Your task to perform on an android device: Go to accessibility settings Image 0: 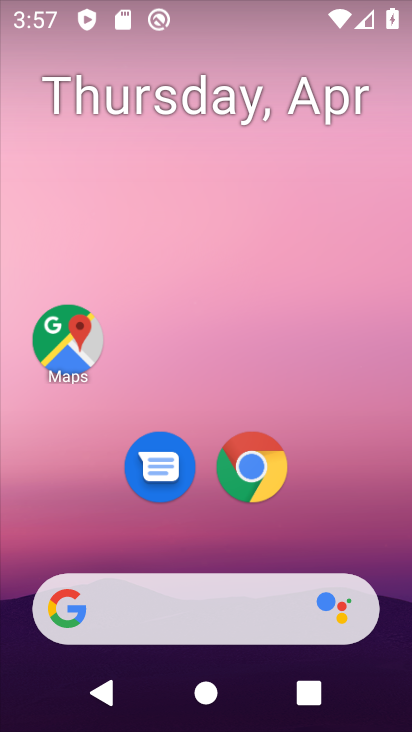
Step 0: drag from (230, 549) to (339, 17)
Your task to perform on an android device: Go to accessibility settings Image 1: 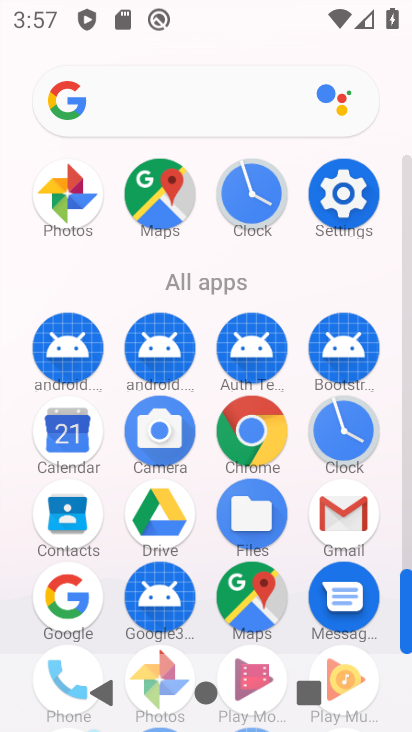
Step 1: click (352, 215)
Your task to perform on an android device: Go to accessibility settings Image 2: 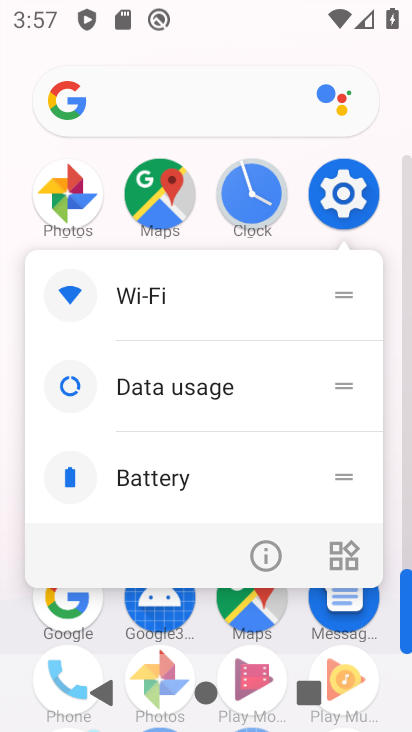
Step 2: click (340, 200)
Your task to perform on an android device: Go to accessibility settings Image 3: 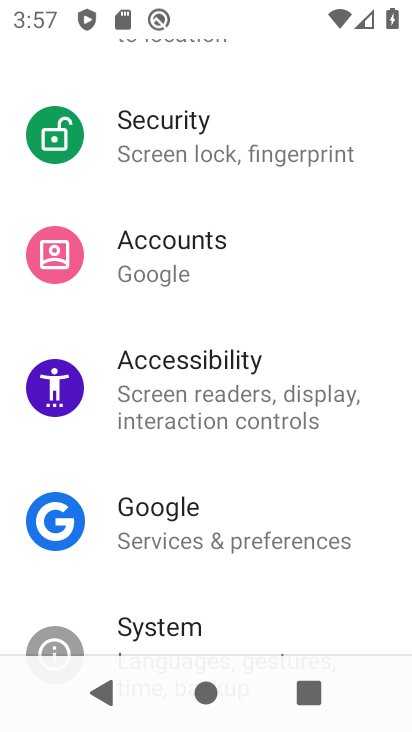
Step 3: drag from (204, 472) to (254, 267)
Your task to perform on an android device: Go to accessibility settings Image 4: 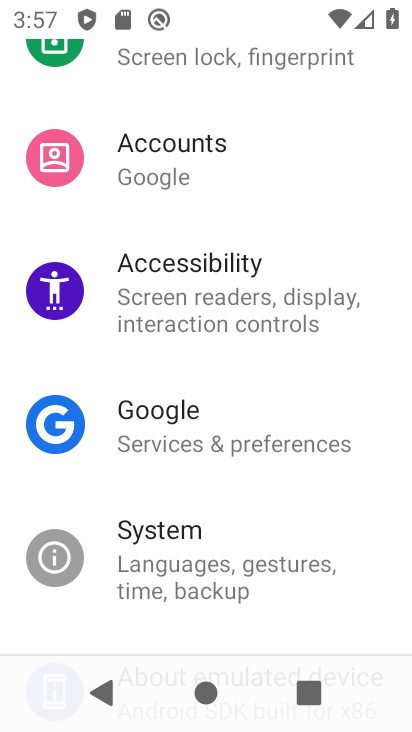
Step 4: click (218, 296)
Your task to perform on an android device: Go to accessibility settings Image 5: 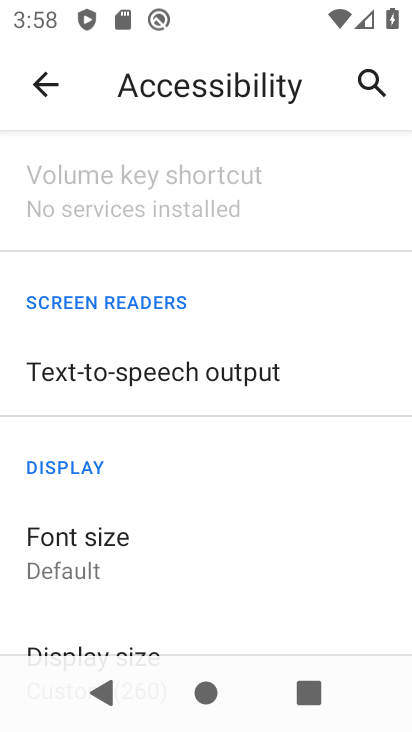
Step 5: task complete